Your task to perform on an android device: turn off data saver in the chrome app Image 0: 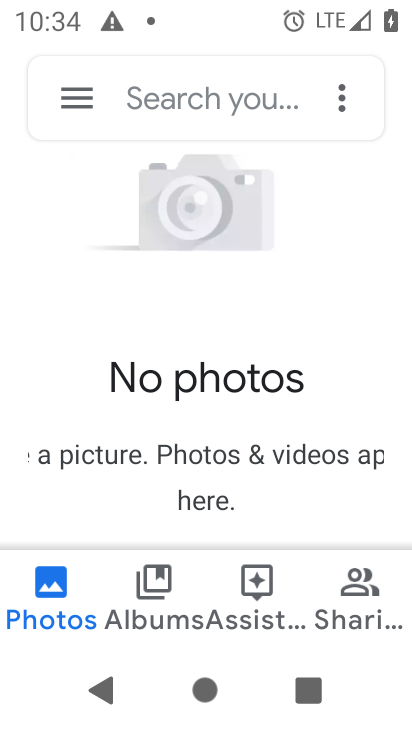
Step 0: press home button
Your task to perform on an android device: turn off data saver in the chrome app Image 1: 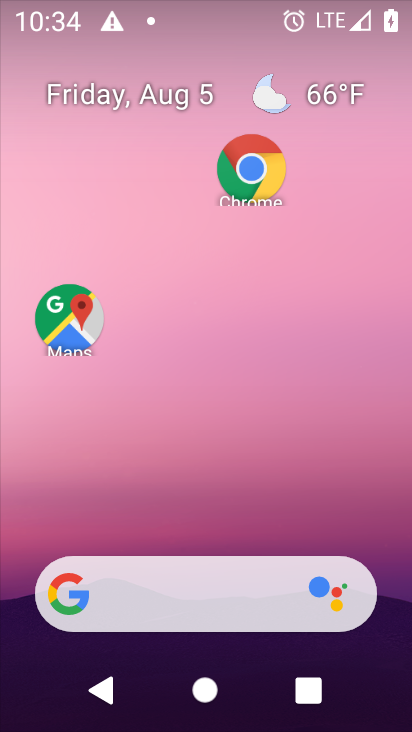
Step 1: click (239, 178)
Your task to perform on an android device: turn off data saver in the chrome app Image 2: 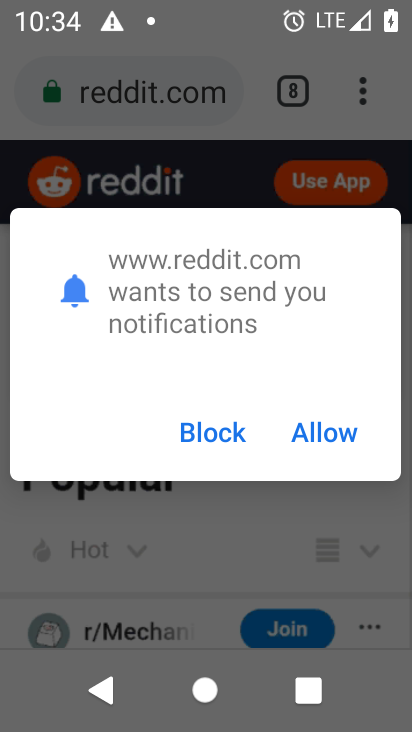
Step 2: drag from (310, 404) to (362, 404)
Your task to perform on an android device: turn off data saver in the chrome app Image 3: 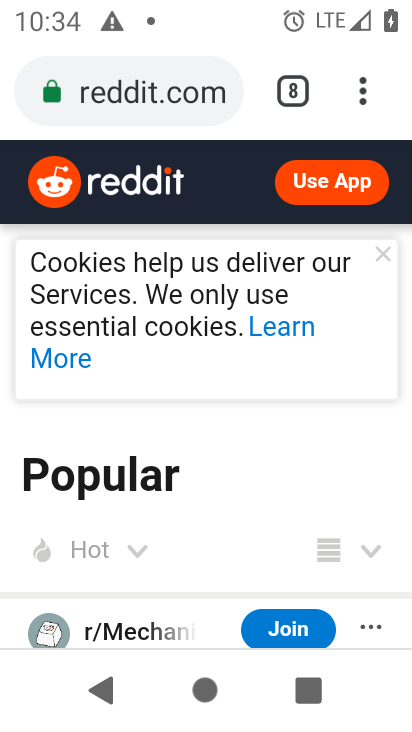
Step 3: click (355, 95)
Your task to perform on an android device: turn off data saver in the chrome app Image 4: 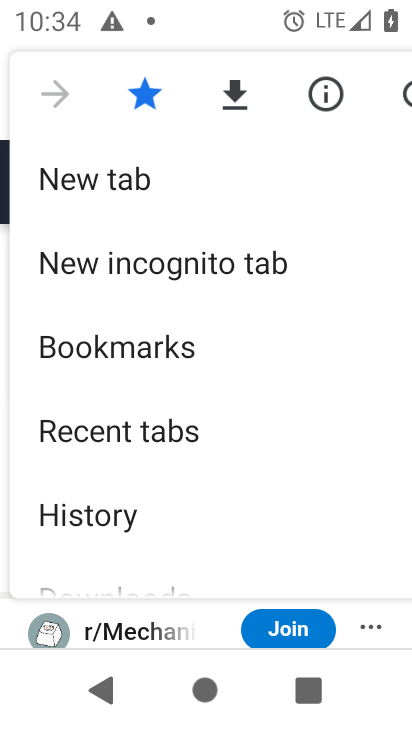
Step 4: drag from (115, 508) to (122, 191)
Your task to perform on an android device: turn off data saver in the chrome app Image 5: 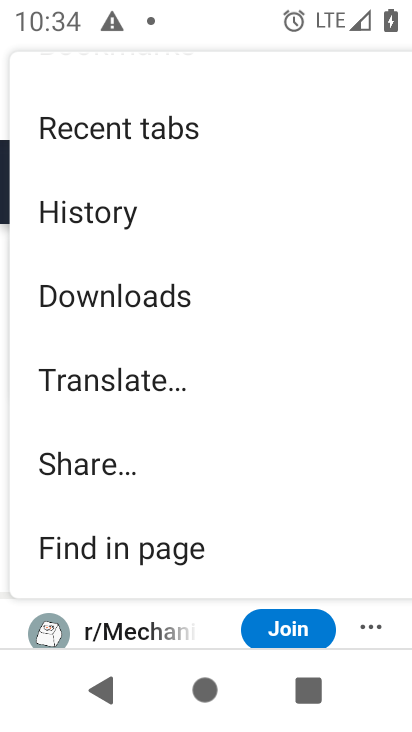
Step 5: drag from (131, 516) to (150, 140)
Your task to perform on an android device: turn off data saver in the chrome app Image 6: 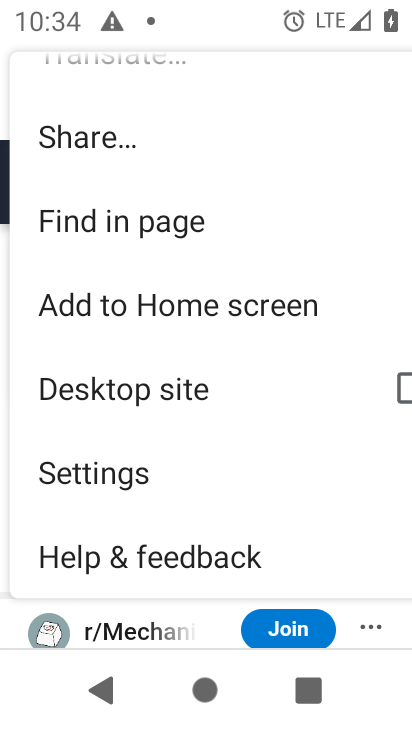
Step 6: click (140, 463)
Your task to perform on an android device: turn off data saver in the chrome app Image 7: 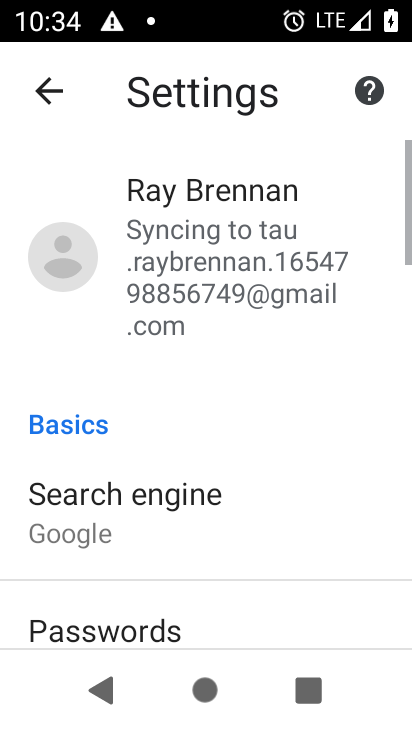
Step 7: drag from (179, 634) to (179, 171)
Your task to perform on an android device: turn off data saver in the chrome app Image 8: 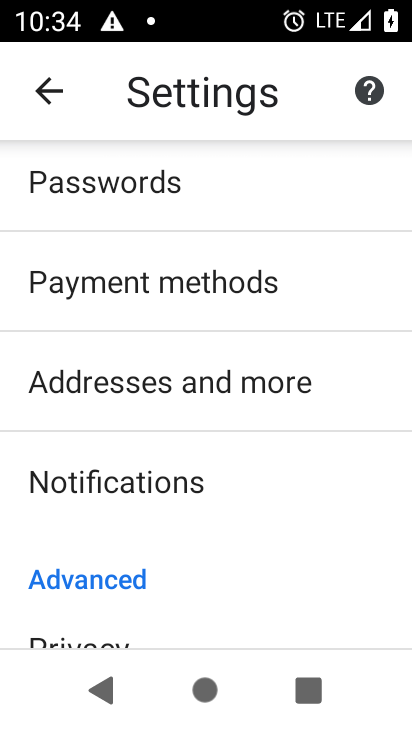
Step 8: drag from (199, 549) to (200, 147)
Your task to perform on an android device: turn off data saver in the chrome app Image 9: 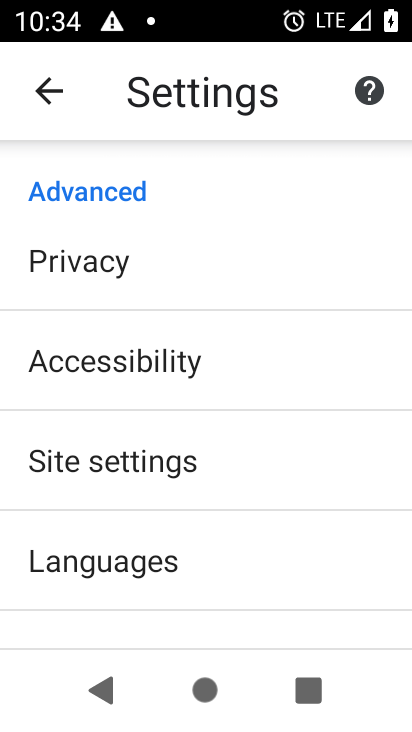
Step 9: drag from (167, 536) to (169, 192)
Your task to perform on an android device: turn off data saver in the chrome app Image 10: 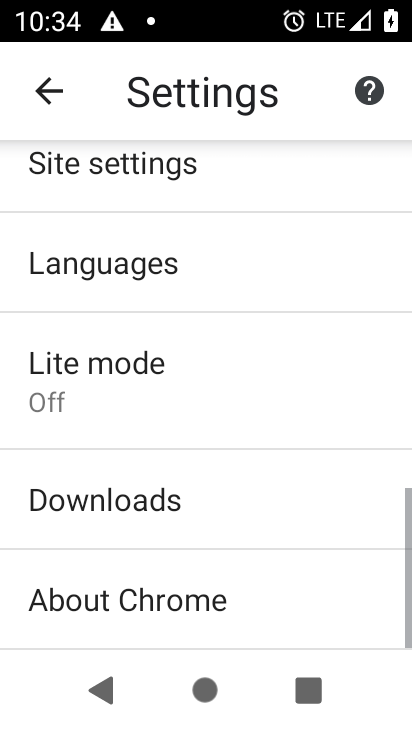
Step 10: click (166, 403)
Your task to perform on an android device: turn off data saver in the chrome app Image 11: 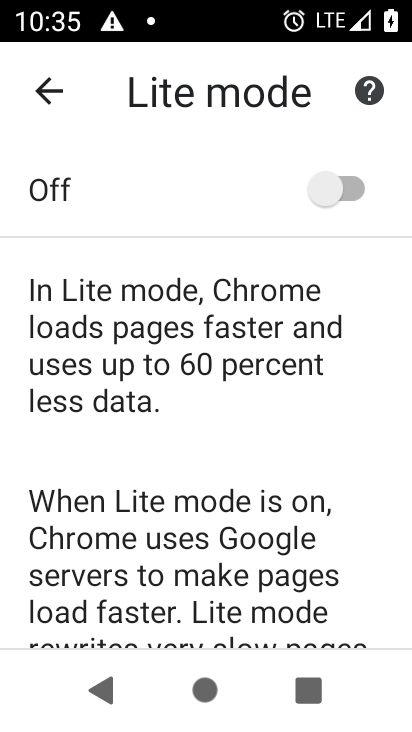
Step 11: task complete